Your task to perform on an android device: read, delete, or share a saved page in the chrome app Image 0: 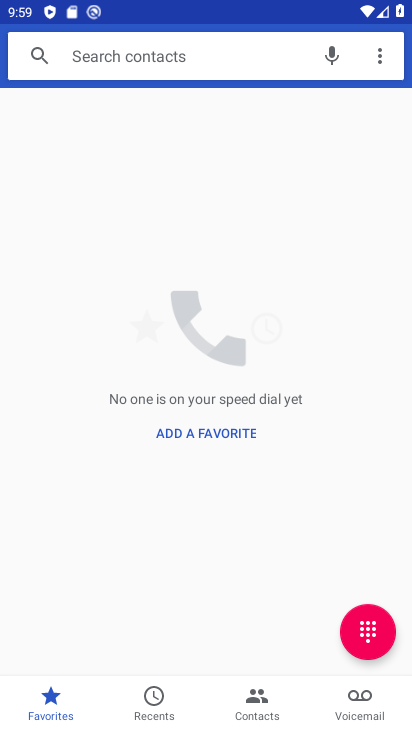
Step 0: press home button
Your task to perform on an android device: read, delete, or share a saved page in the chrome app Image 1: 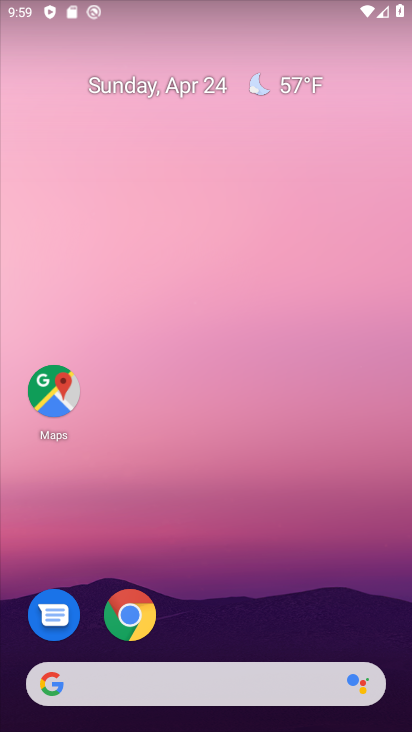
Step 1: click (126, 612)
Your task to perform on an android device: read, delete, or share a saved page in the chrome app Image 2: 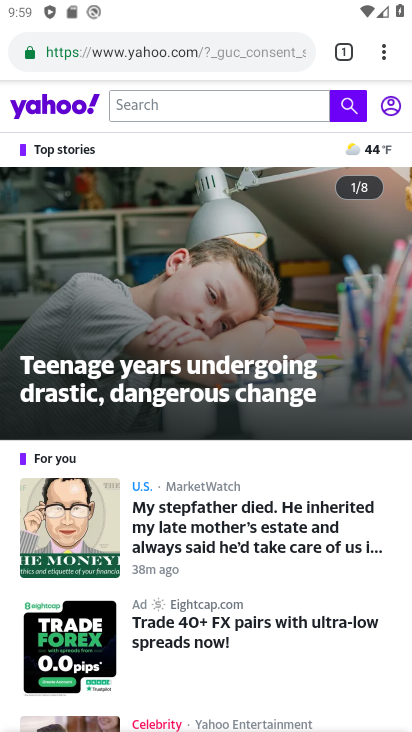
Step 2: click (382, 54)
Your task to perform on an android device: read, delete, or share a saved page in the chrome app Image 3: 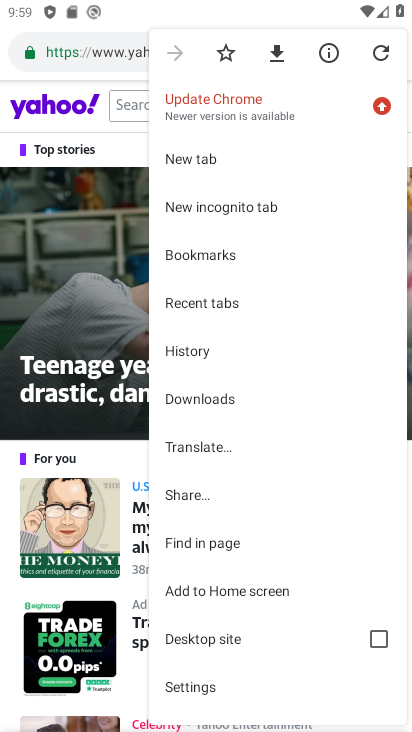
Step 3: click (183, 391)
Your task to perform on an android device: read, delete, or share a saved page in the chrome app Image 4: 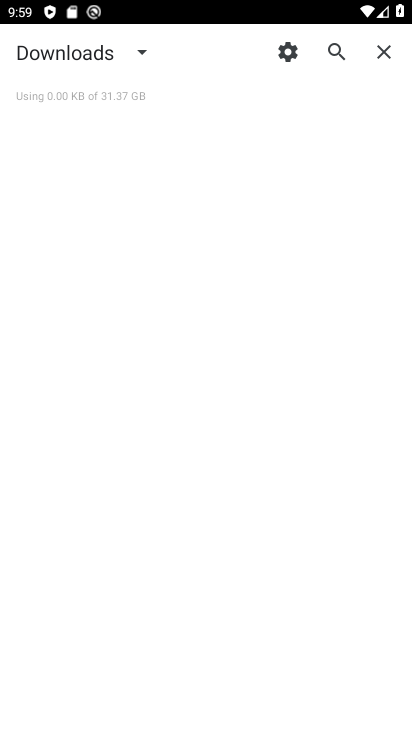
Step 4: click (135, 54)
Your task to perform on an android device: read, delete, or share a saved page in the chrome app Image 5: 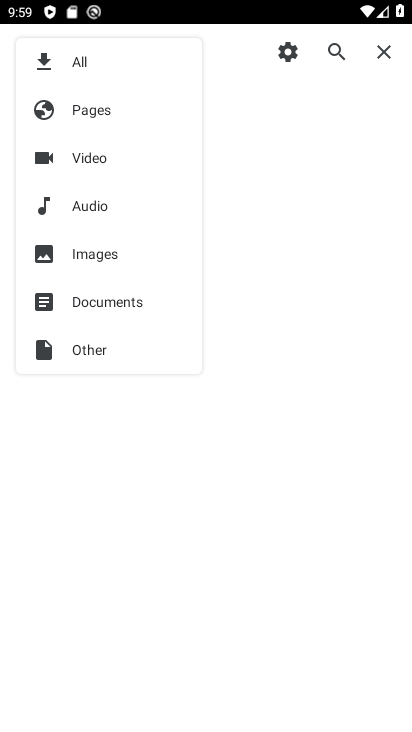
Step 5: click (84, 117)
Your task to perform on an android device: read, delete, or share a saved page in the chrome app Image 6: 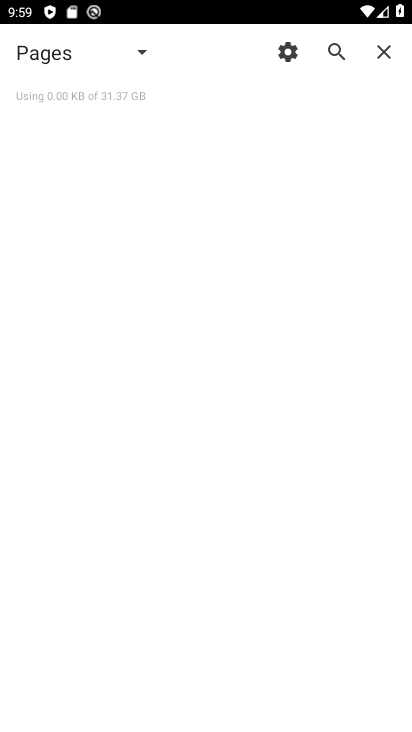
Step 6: task complete